Your task to perform on an android device: What's the latest video from GameTrailers? Image 0: 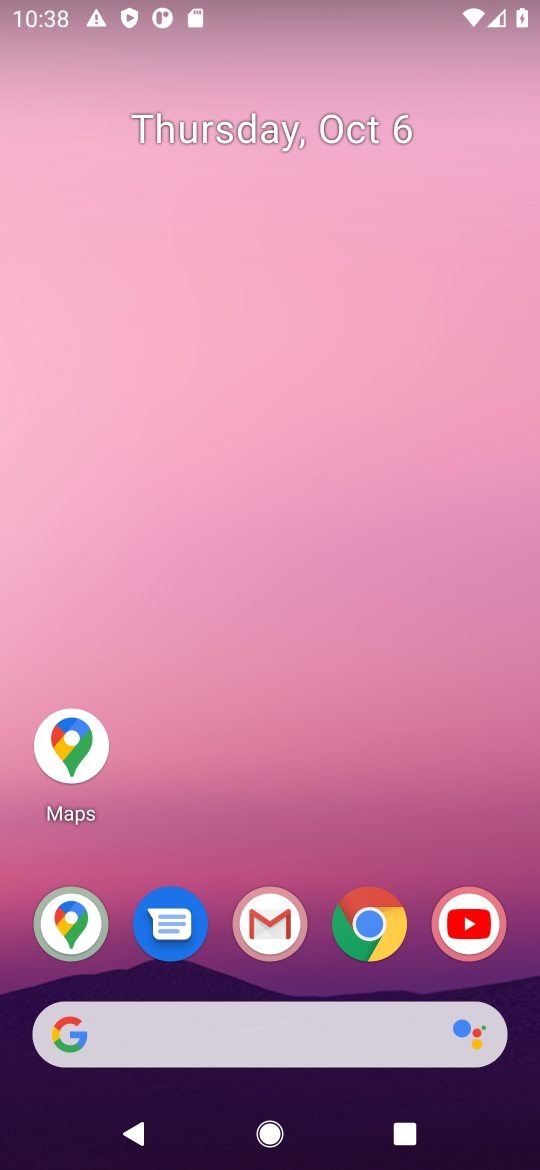
Step 0: click (461, 917)
Your task to perform on an android device: What's the latest video from GameTrailers? Image 1: 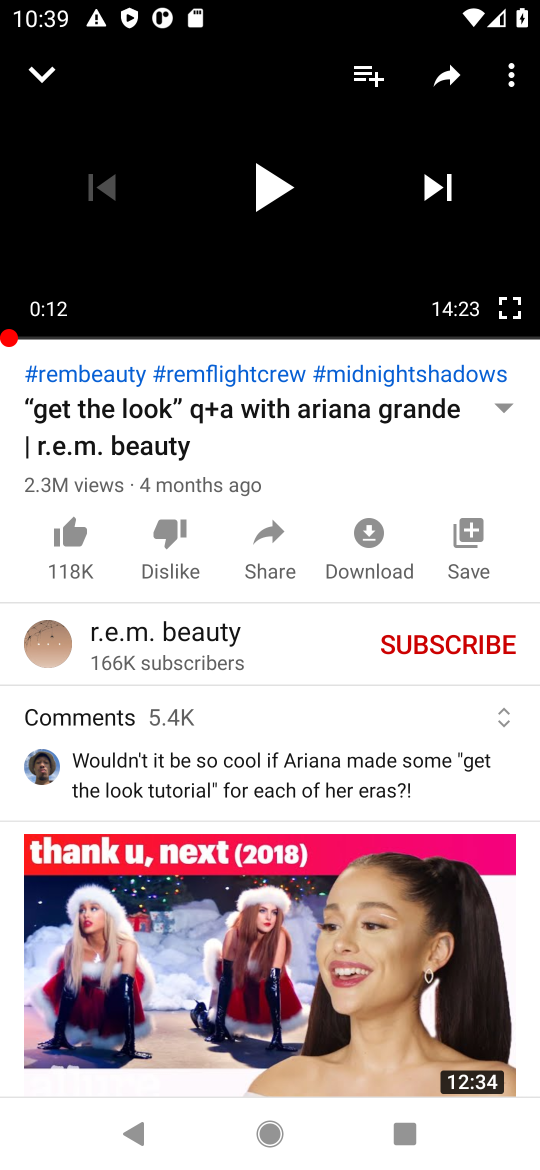
Step 1: press back button
Your task to perform on an android device: What's the latest video from GameTrailers? Image 2: 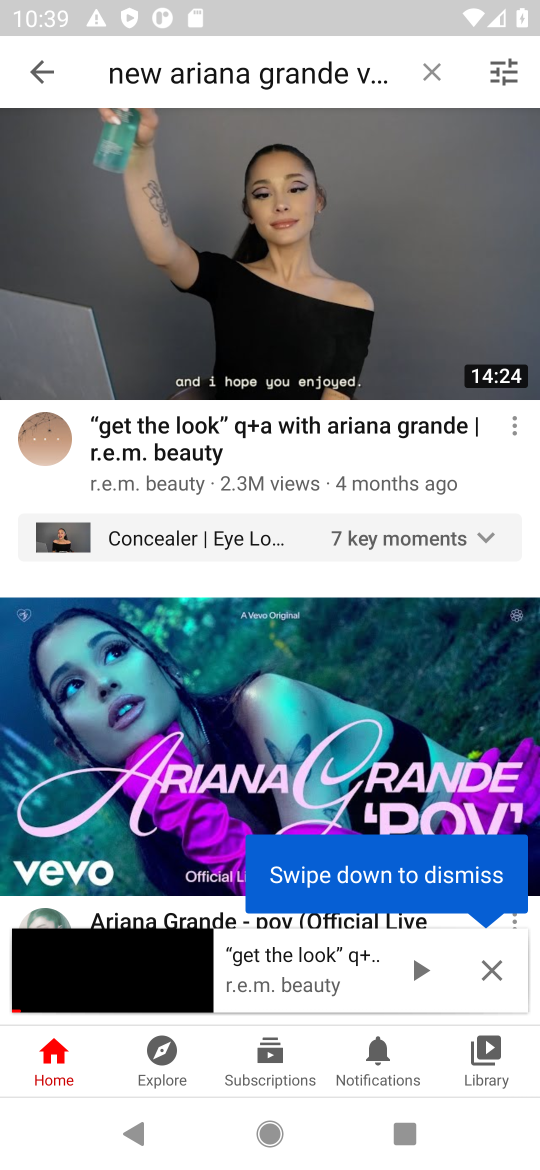
Step 2: click (426, 63)
Your task to perform on an android device: What's the latest video from GameTrailers? Image 3: 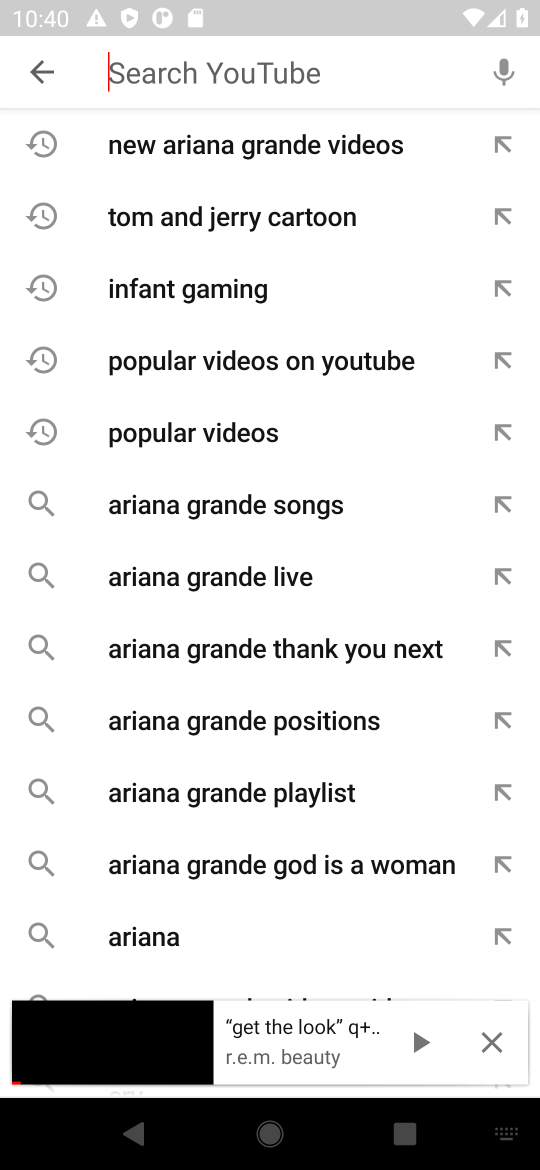
Step 3: type "latest video from GameTrailers"
Your task to perform on an android device: What's the latest video from GameTrailers? Image 4: 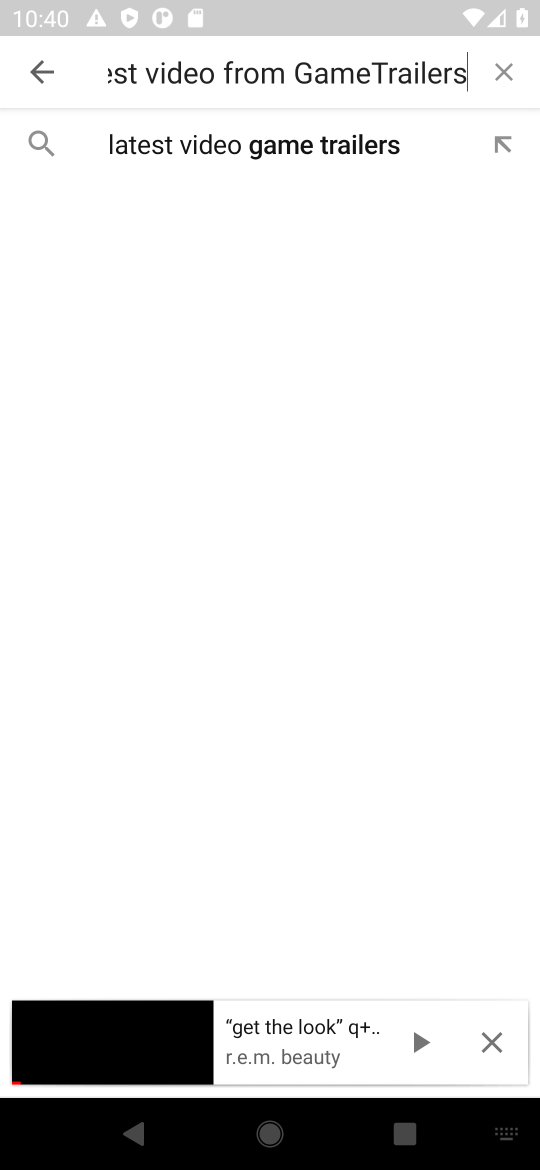
Step 4: click (298, 135)
Your task to perform on an android device: What's the latest video from GameTrailers? Image 5: 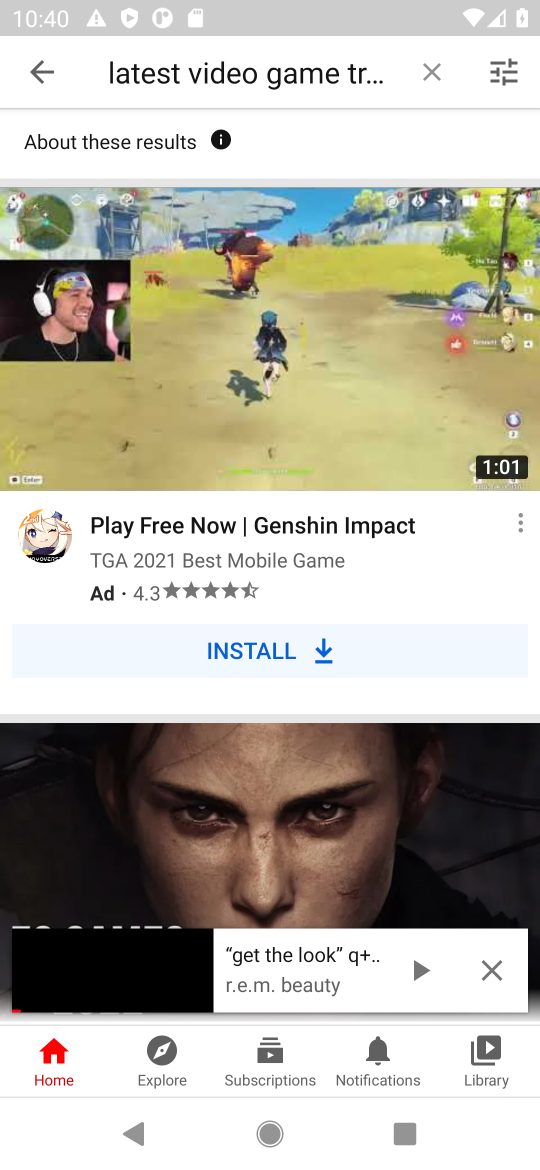
Step 5: click (488, 966)
Your task to perform on an android device: What's the latest video from GameTrailers? Image 6: 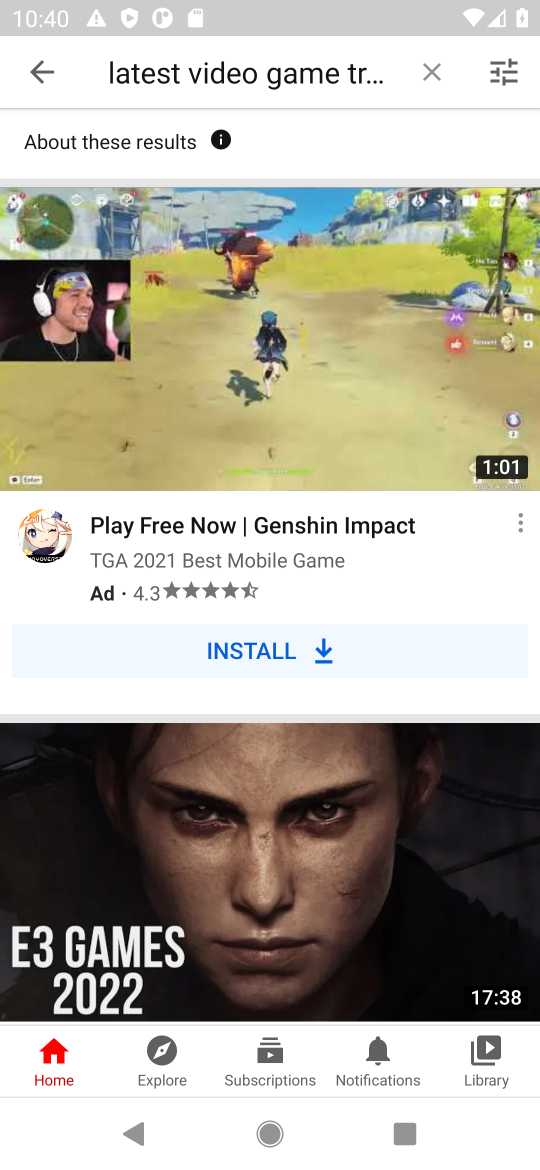
Step 6: drag from (326, 763) to (464, 250)
Your task to perform on an android device: What's the latest video from GameTrailers? Image 7: 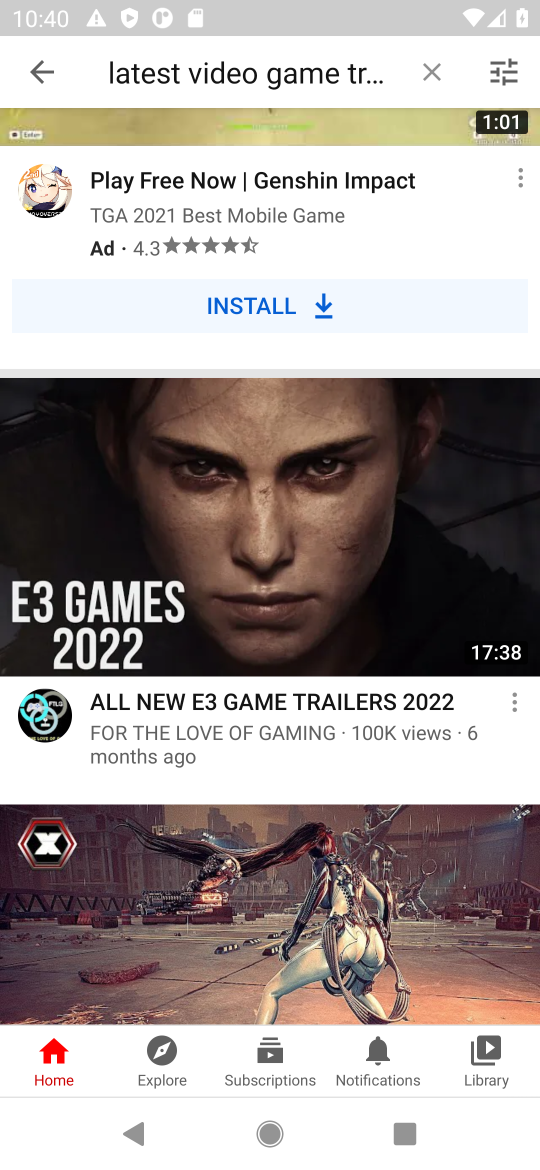
Step 7: click (350, 550)
Your task to perform on an android device: What's the latest video from GameTrailers? Image 8: 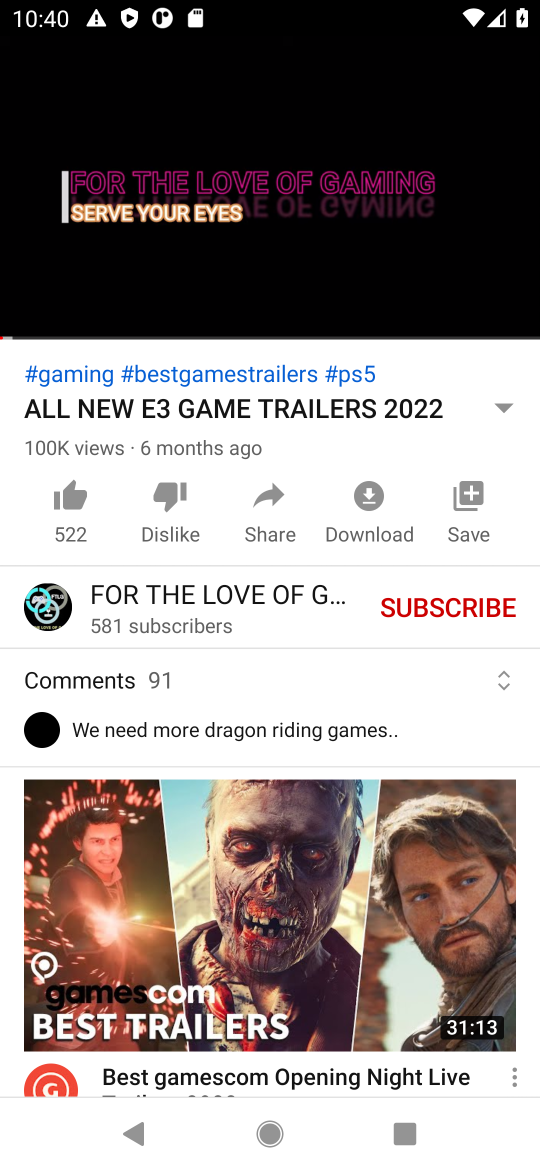
Step 8: click (313, 162)
Your task to perform on an android device: What's the latest video from GameTrailers? Image 9: 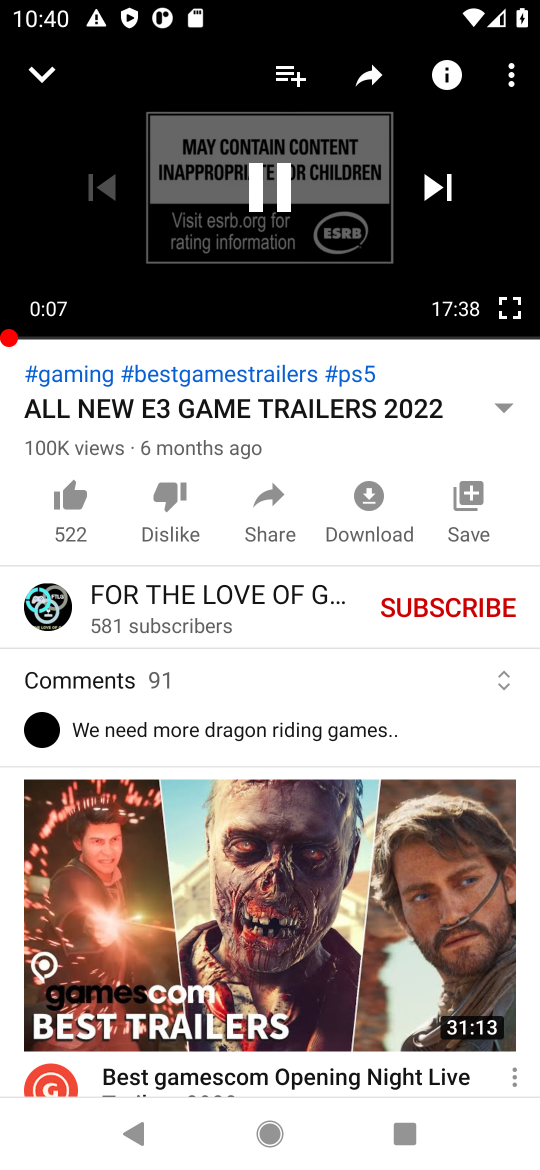
Step 9: click (275, 181)
Your task to perform on an android device: What's the latest video from GameTrailers? Image 10: 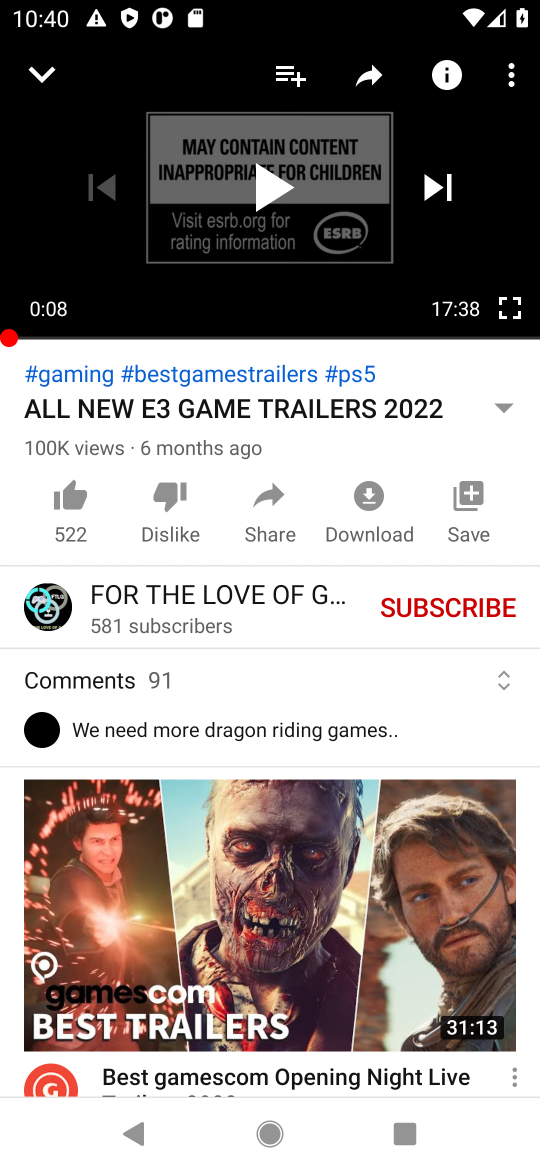
Step 10: task complete